Your task to perform on an android device: set an alarm Image 0: 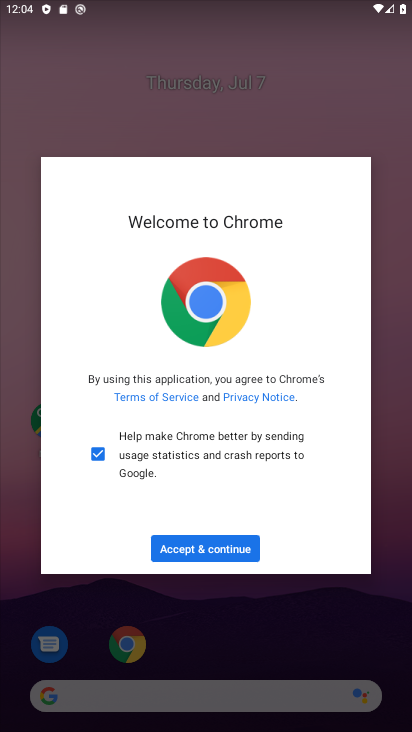
Step 0: press home button
Your task to perform on an android device: set an alarm Image 1: 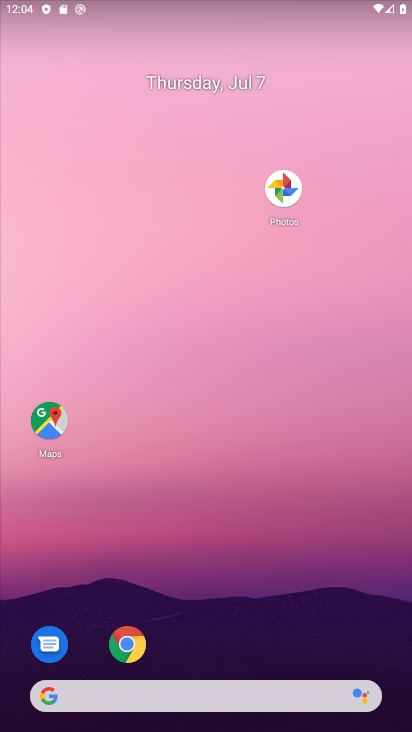
Step 1: drag from (264, 657) to (264, 145)
Your task to perform on an android device: set an alarm Image 2: 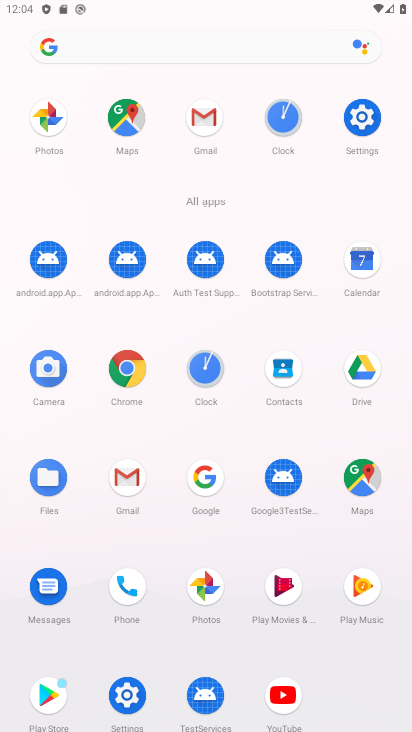
Step 2: drag from (287, 115) to (193, 192)
Your task to perform on an android device: set an alarm Image 3: 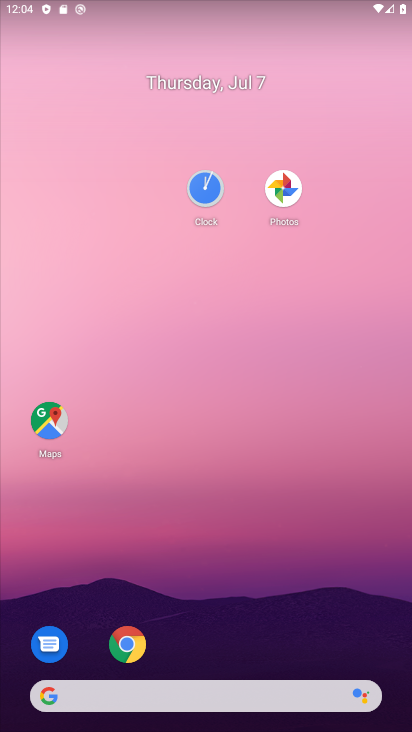
Step 3: click (206, 191)
Your task to perform on an android device: set an alarm Image 4: 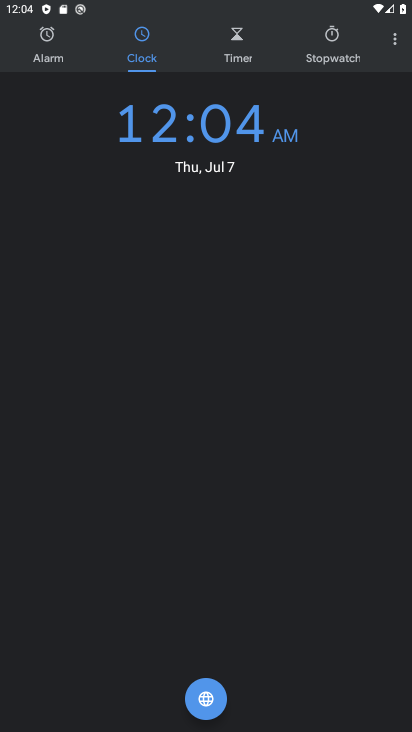
Step 4: click (49, 46)
Your task to perform on an android device: set an alarm Image 5: 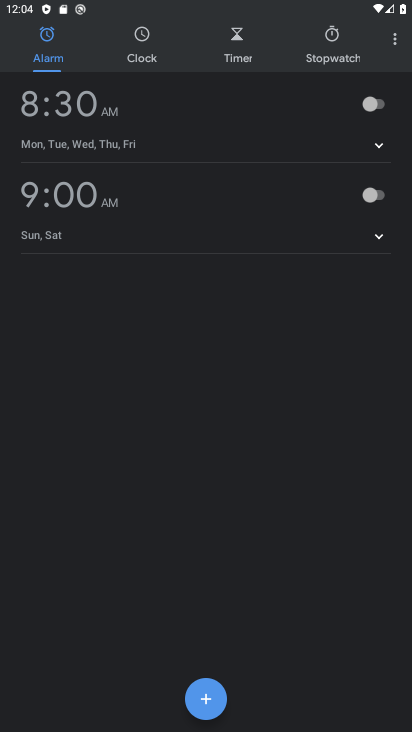
Step 5: click (369, 112)
Your task to perform on an android device: set an alarm Image 6: 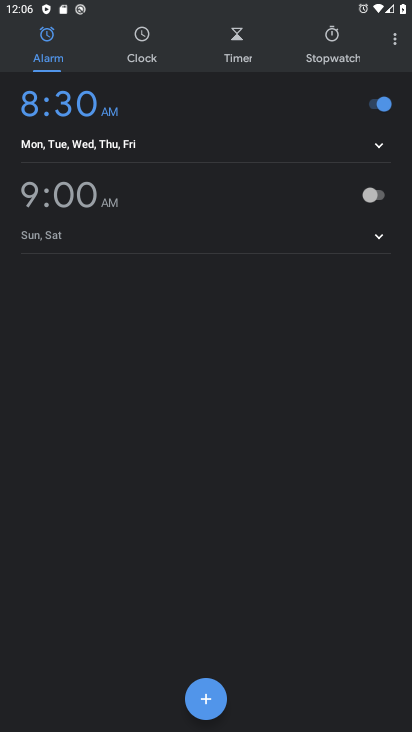
Step 6: task complete